Your task to perform on an android device: manage bookmarks in the chrome app Image 0: 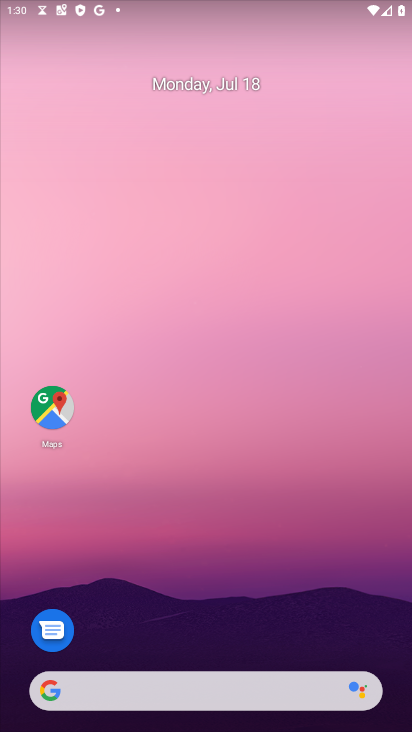
Step 0: drag from (260, 568) to (260, 108)
Your task to perform on an android device: manage bookmarks in the chrome app Image 1: 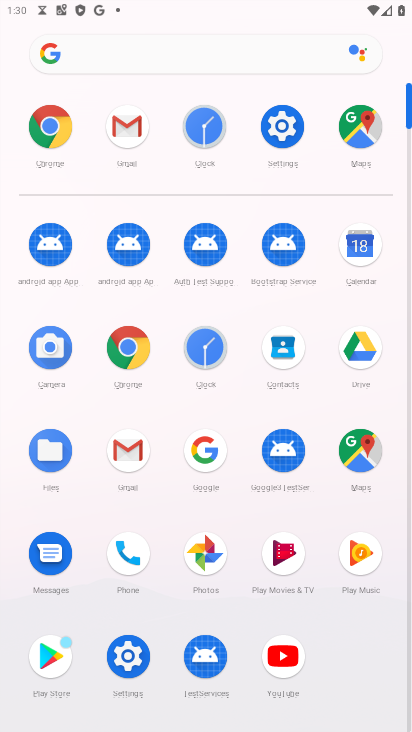
Step 1: click (121, 340)
Your task to perform on an android device: manage bookmarks in the chrome app Image 2: 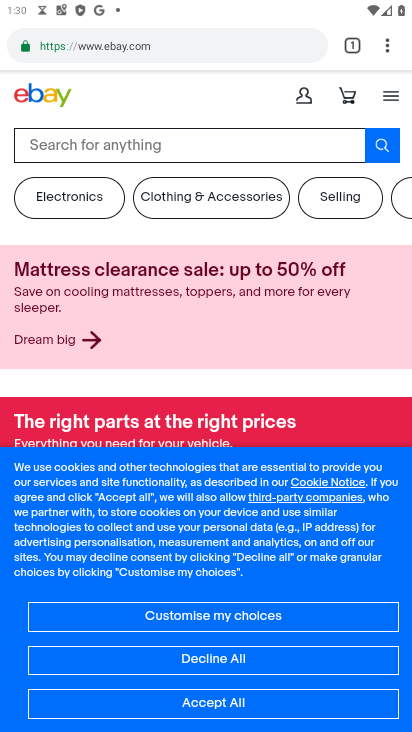
Step 2: task complete